Your task to perform on an android device: Is it going to rain today? Image 0: 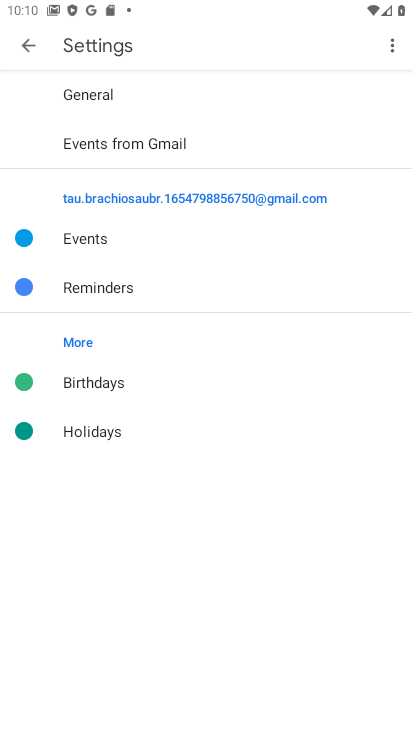
Step 0: press home button
Your task to perform on an android device: Is it going to rain today? Image 1: 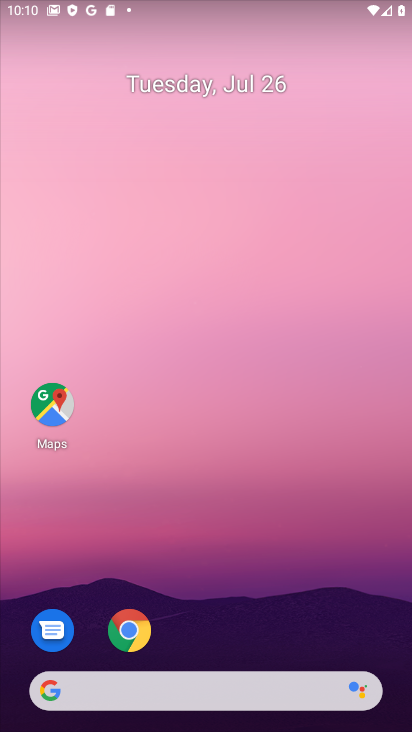
Step 1: click (244, 729)
Your task to perform on an android device: Is it going to rain today? Image 2: 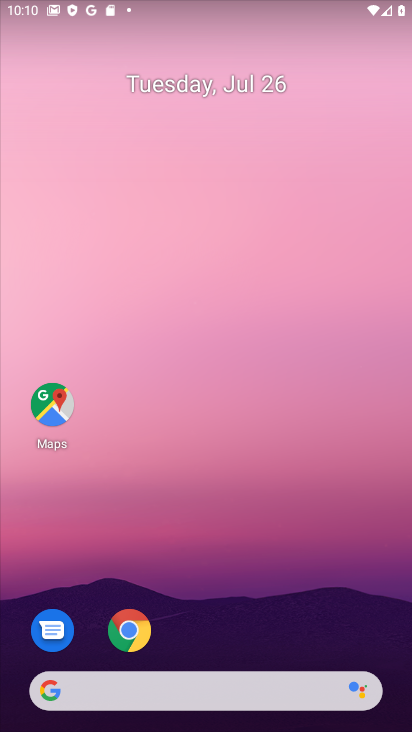
Step 2: click (262, 695)
Your task to perform on an android device: Is it going to rain today? Image 3: 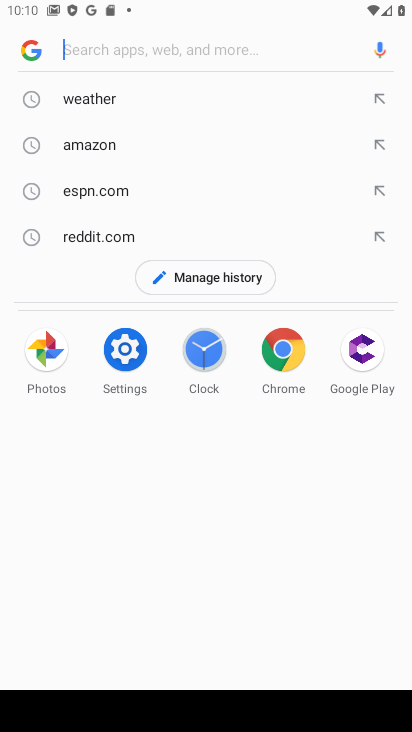
Step 3: type "Is it going to rain today?"
Your task to perform on an android device: Is it going to rain today? Image 4: 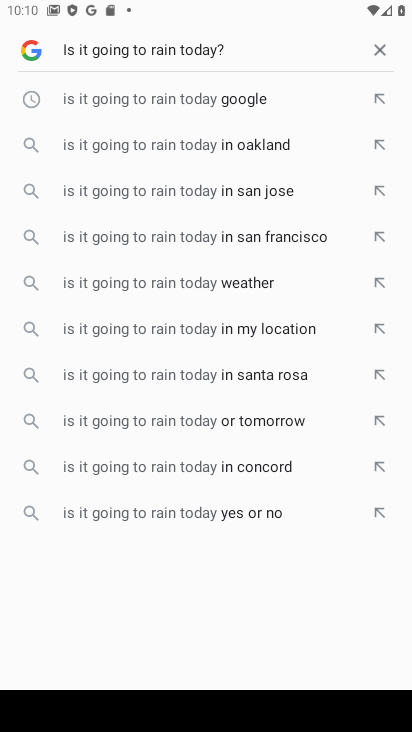
Step 4: task complete